Your task to perform on an android device: Search for macbook air on newegg, select the first entry, and add it to the cart. Image 0: 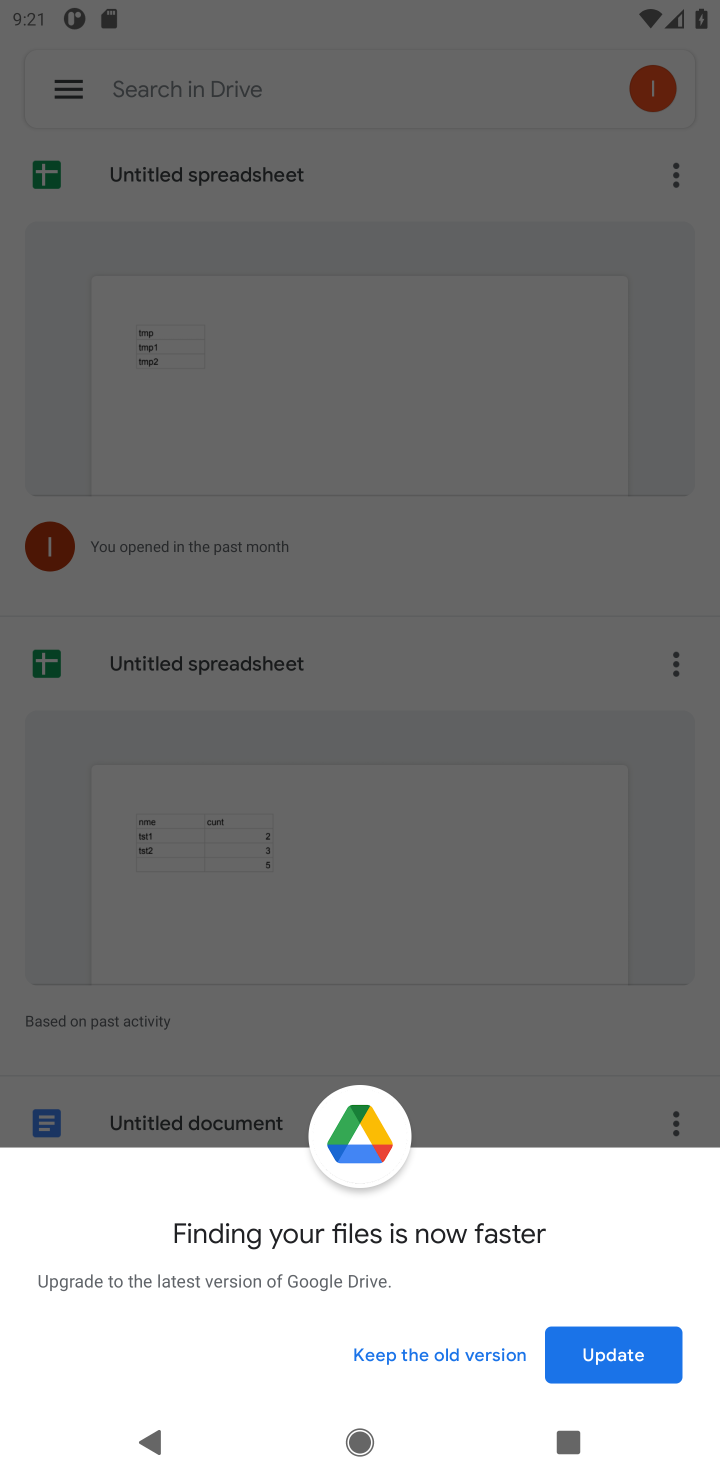
Step 0: press home button
Your task to perform on an android device: Search for macbook air on newegg, select the first entry, and add it to the cart. Image 1: 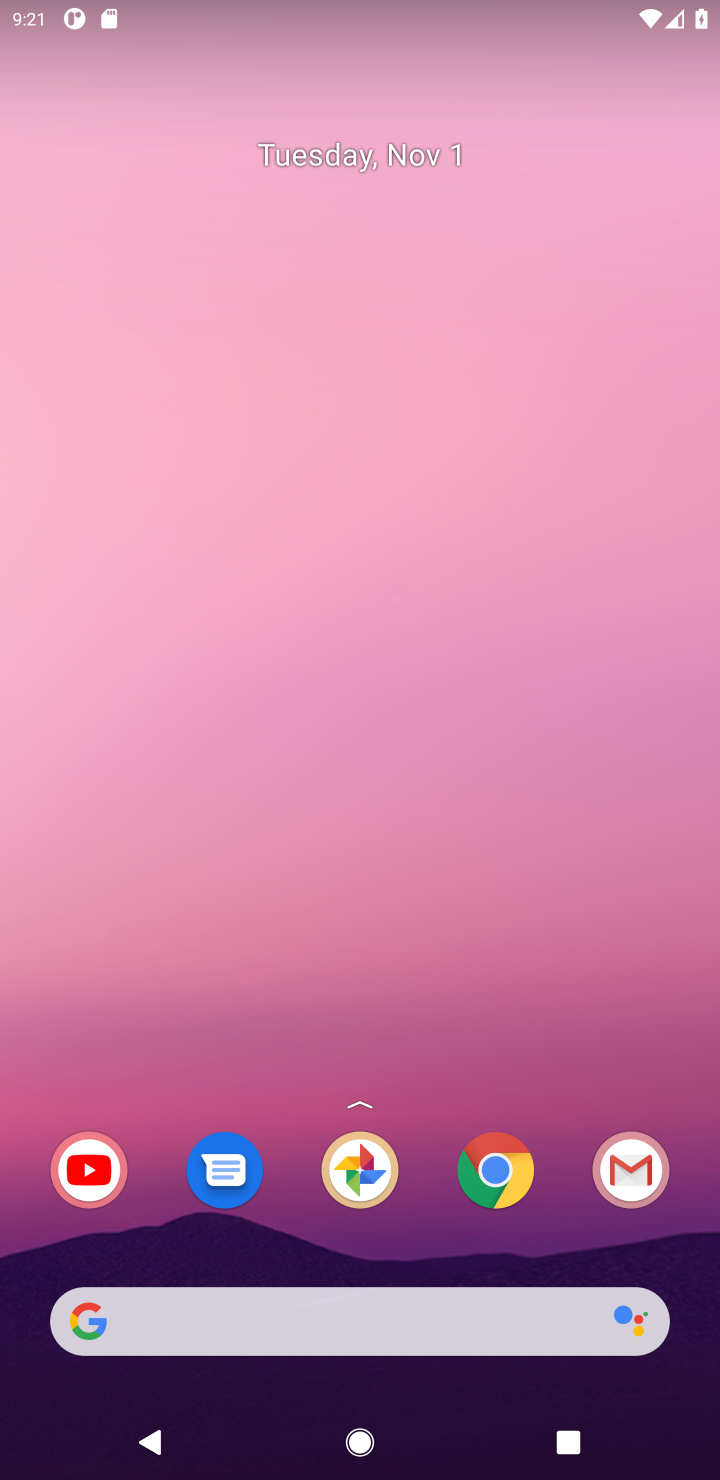
Step 1: click (489, 1184)
Your task to perform on an android device: Search for macbook air on newegg, select the first entry, and add it to the cart. Image 2: 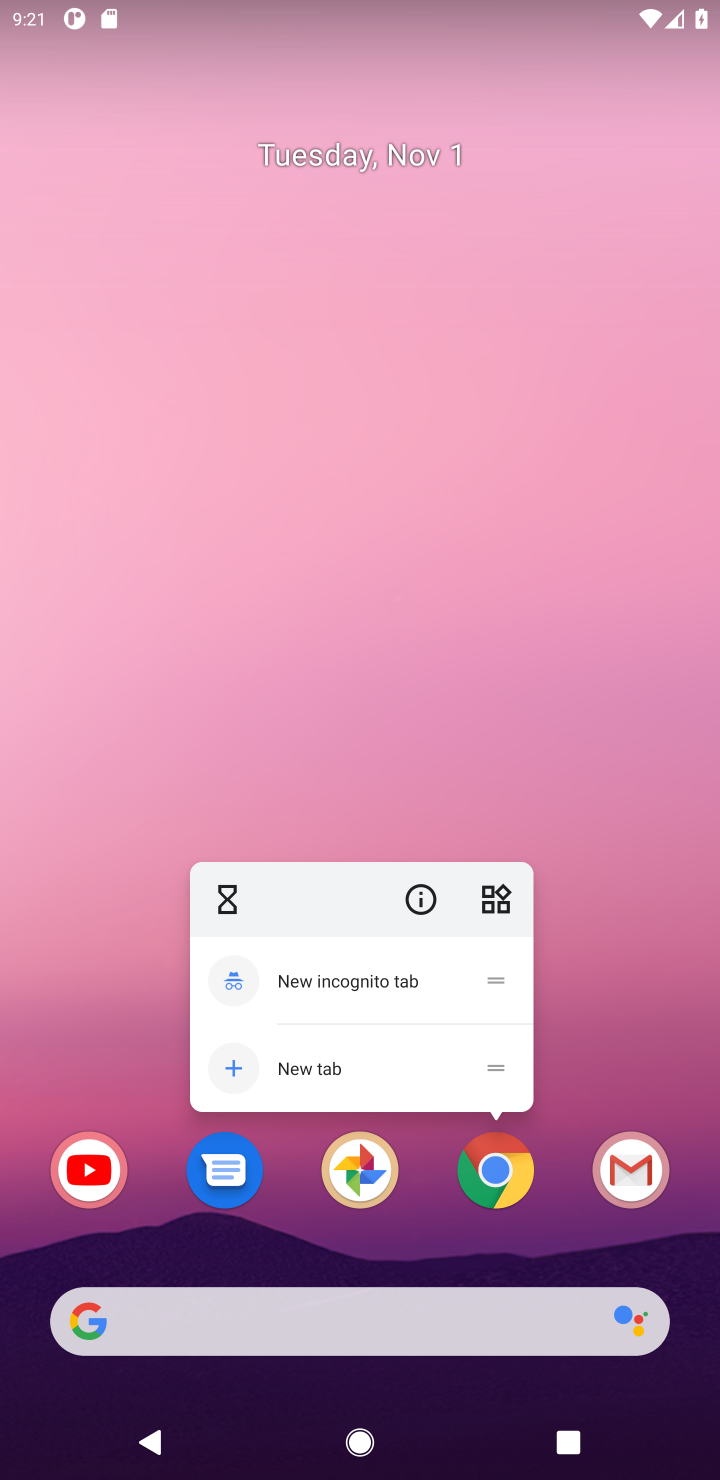
Step 2: click (521, 1177)
Your task to perform on an android device: Search for macbook air on newegg, select the first entry, and add it to the cart. Image 3: 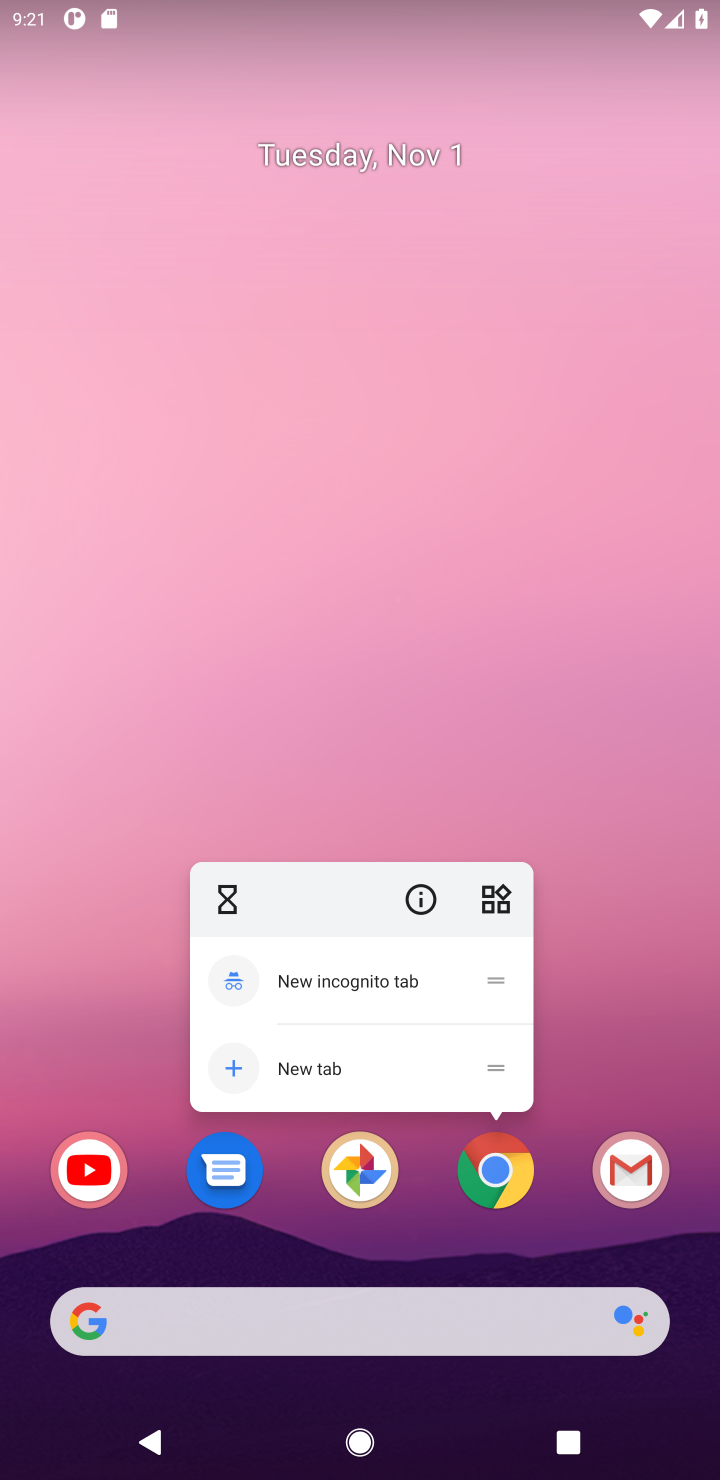
Step 3: click (498, 1180)
Your task to perform on an android device: Search for macbook air on newegg, select the first entry, and add it to the cart. Image 4: 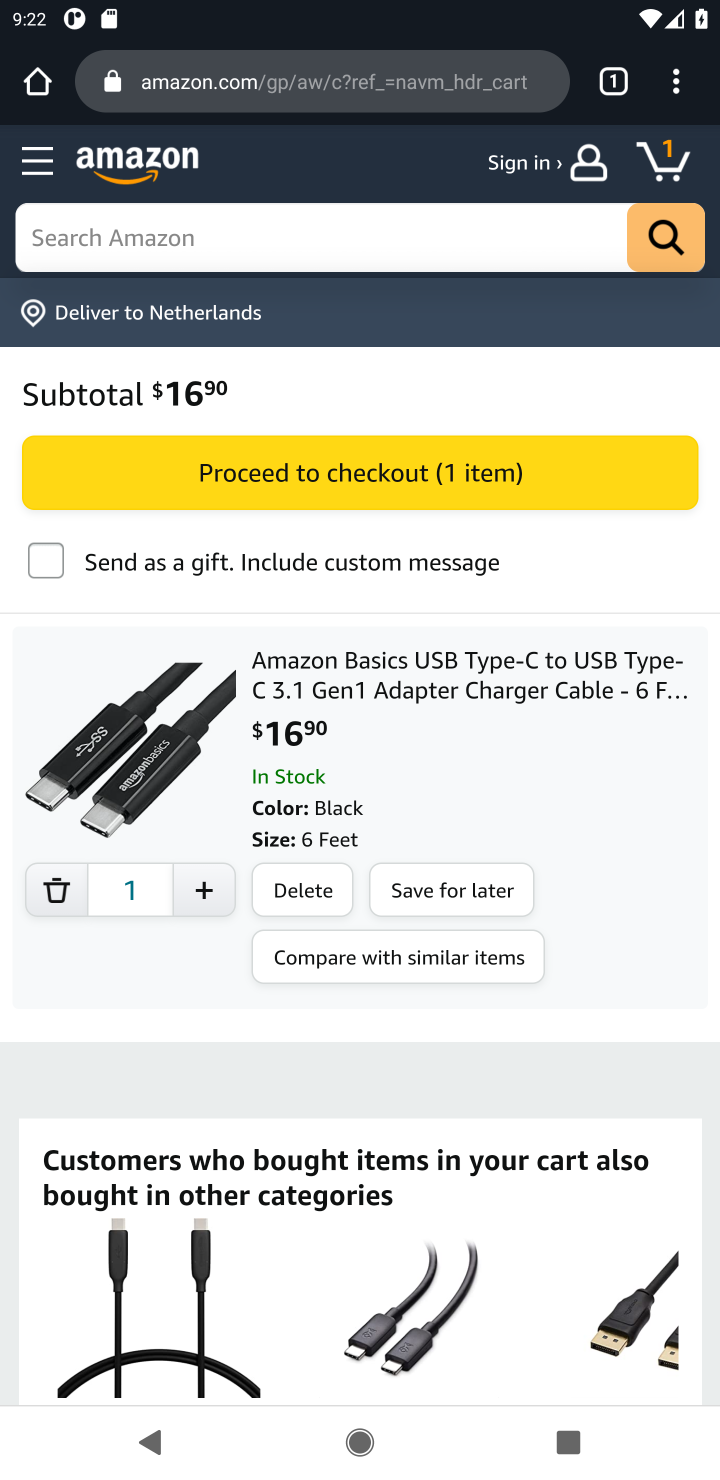
Step 4: click (336, 63)
Your task to perform on an android device: Search for macbook air on newegg, select the first entry, and add it to the cart. Image 5: 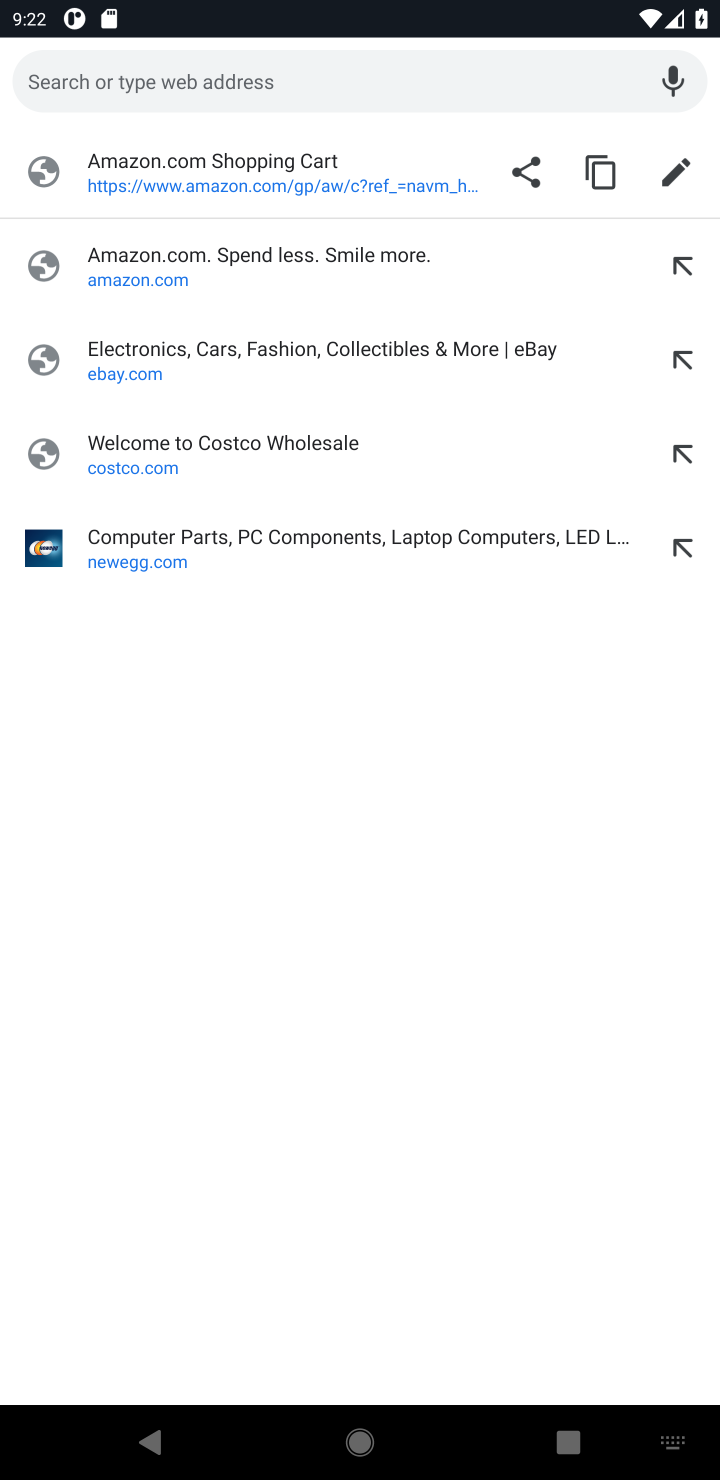
Step 5: type "newegg"
Your task to perform on an android device: Search for macbook air on newegg, select the first entry, and add it to the cart. Image 6: 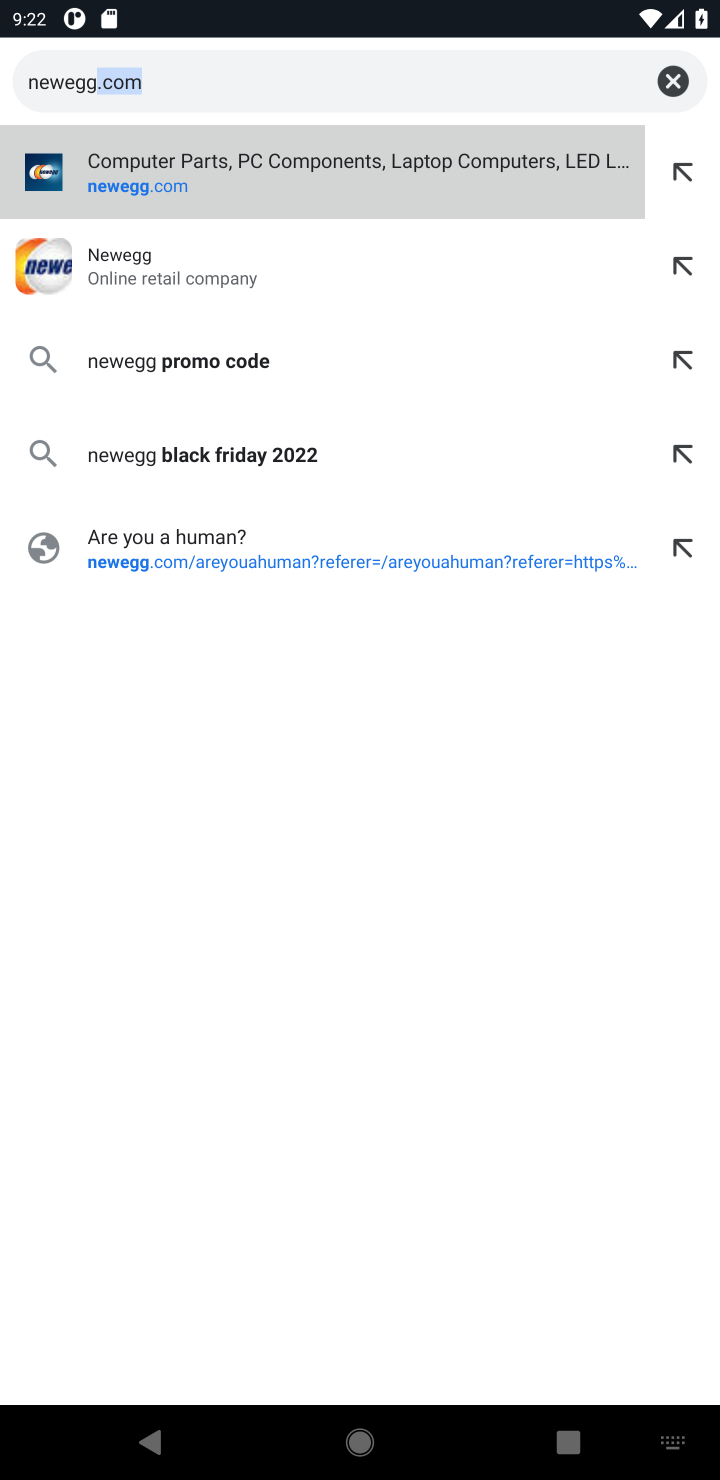
Step 6: type ""
Your task to perform on an android device: Search for macbook air on newegg, select the first entry, and add it to the cart. Image 7: 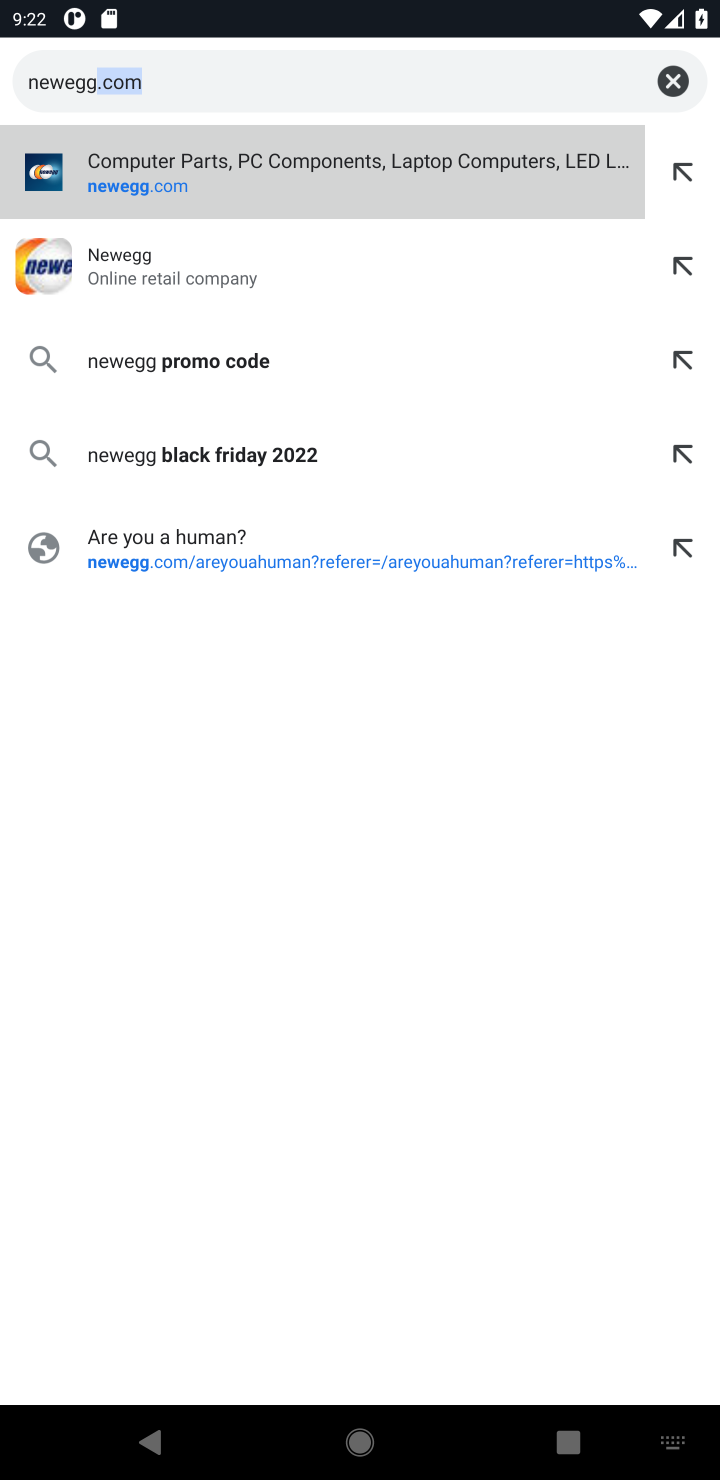
Step 7: press enter
Your task to perform on an android device: Search for macbook air on newegg, select the first entry, and add it to the cart. Image 8: 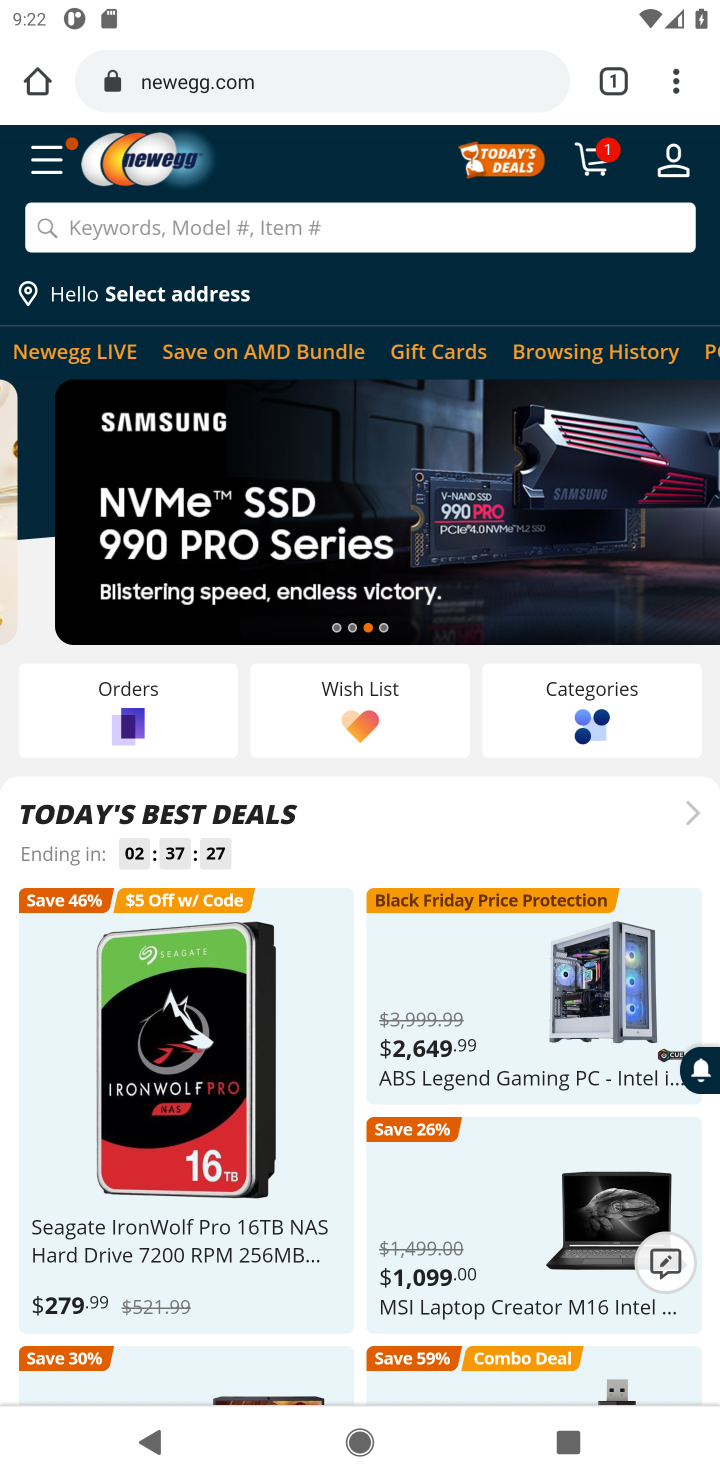
Step 8: click (302, 220)
Your task to perform on an android device: Search for macbook air on newegg, select the first entry, and add it to the cart. Image 9: 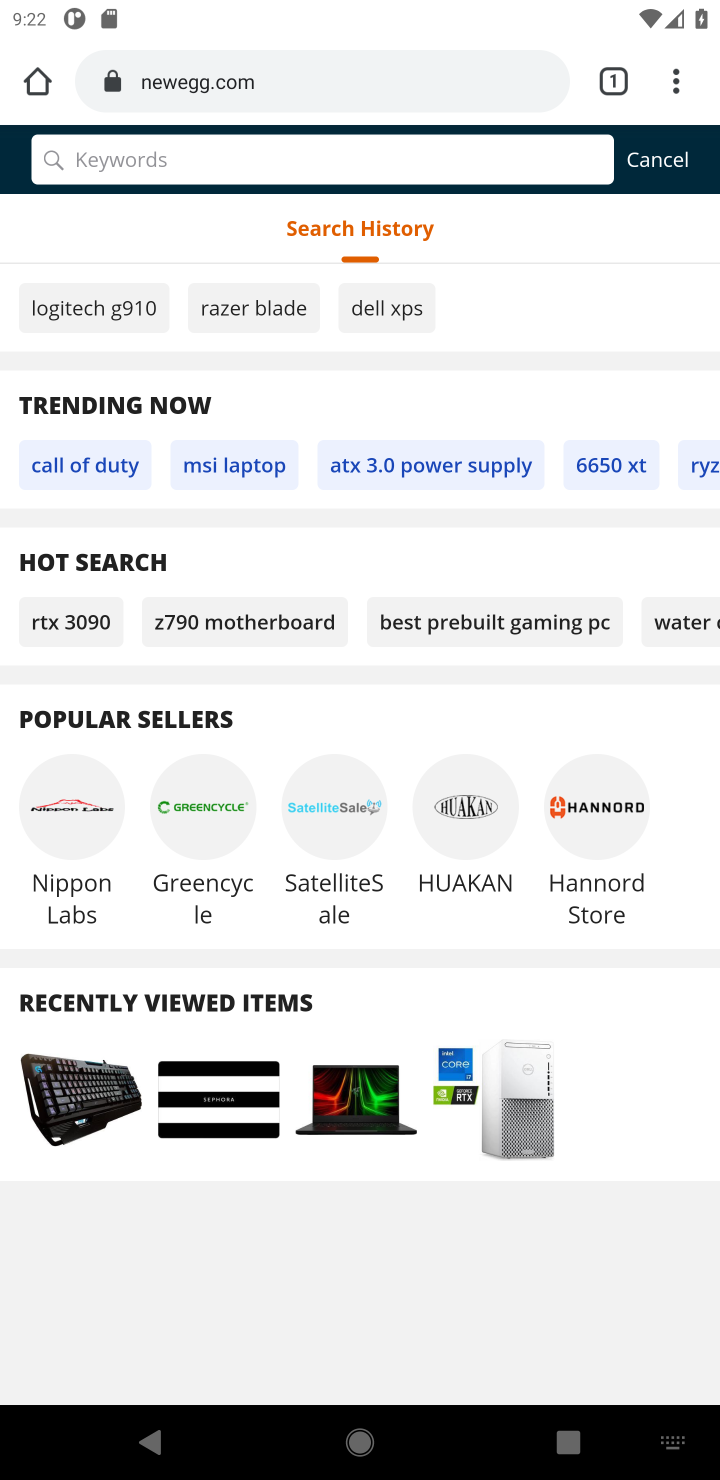
Step 9: type "macbook air"
Your task to perform on an android device: Search for macbook air on newegg, select the first entry, and add it to the cart. Image 10: 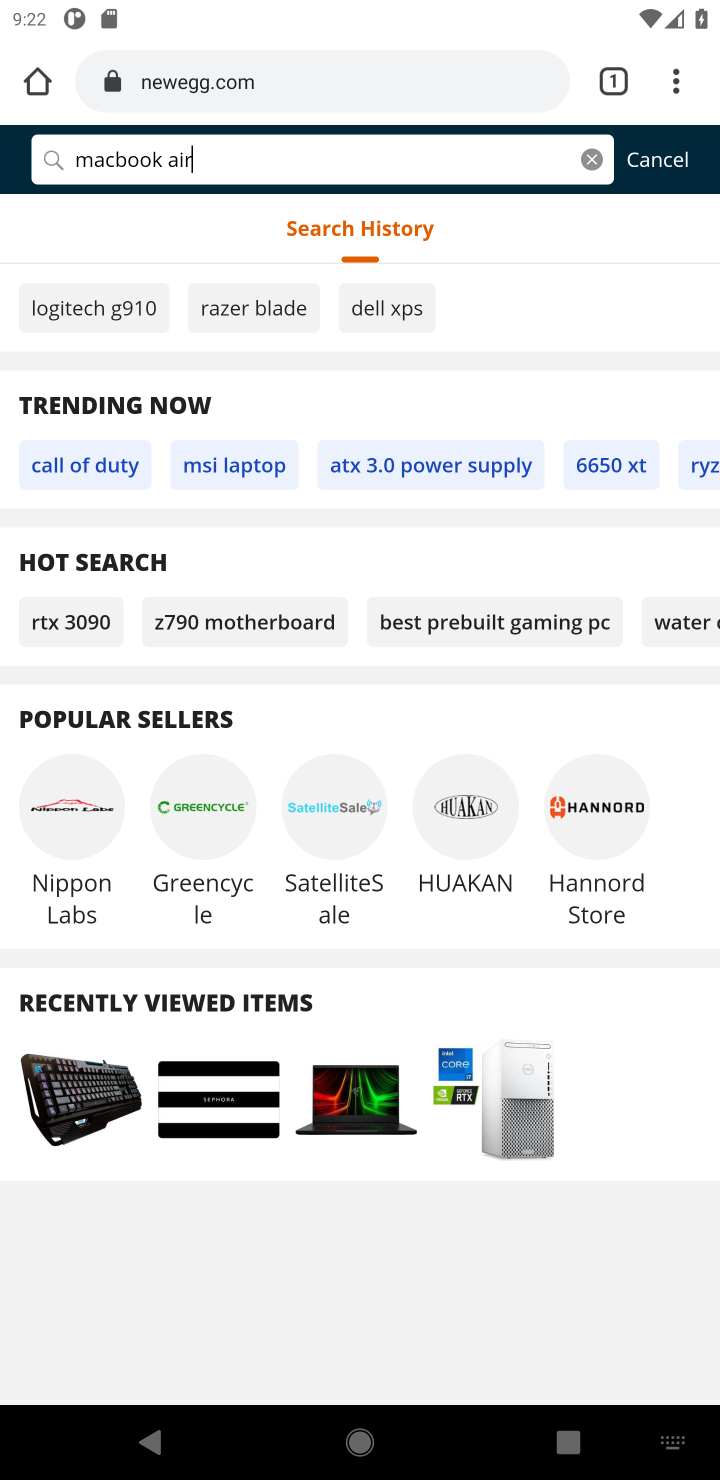
Step 10: type ""
Your task to perform on an android device: Search for macbook air on newegg, select the first entry, and add it to the cart. Image 11: 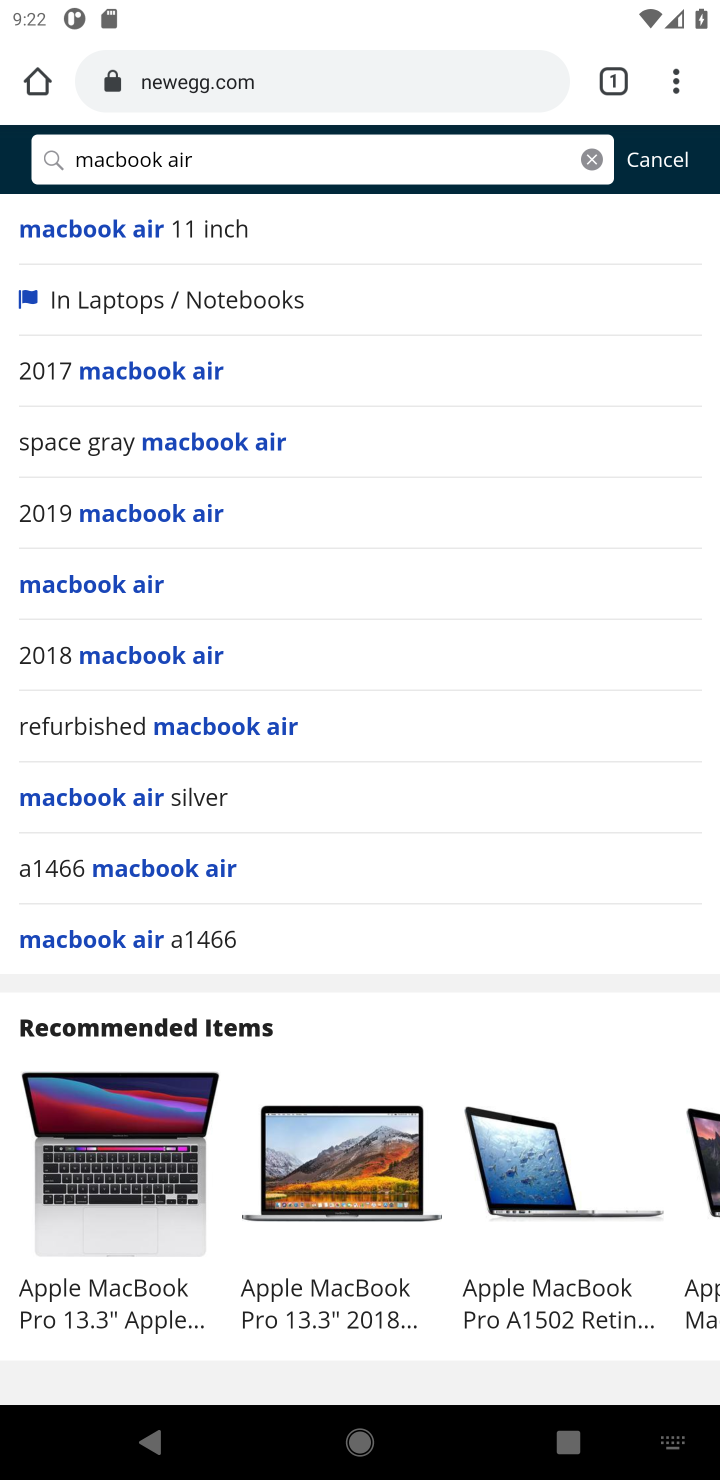
Step 11: press enter
Your task to perform on an android device: Search for macbook air on newegg, select the first entry, and add it to the cart. Image 12: 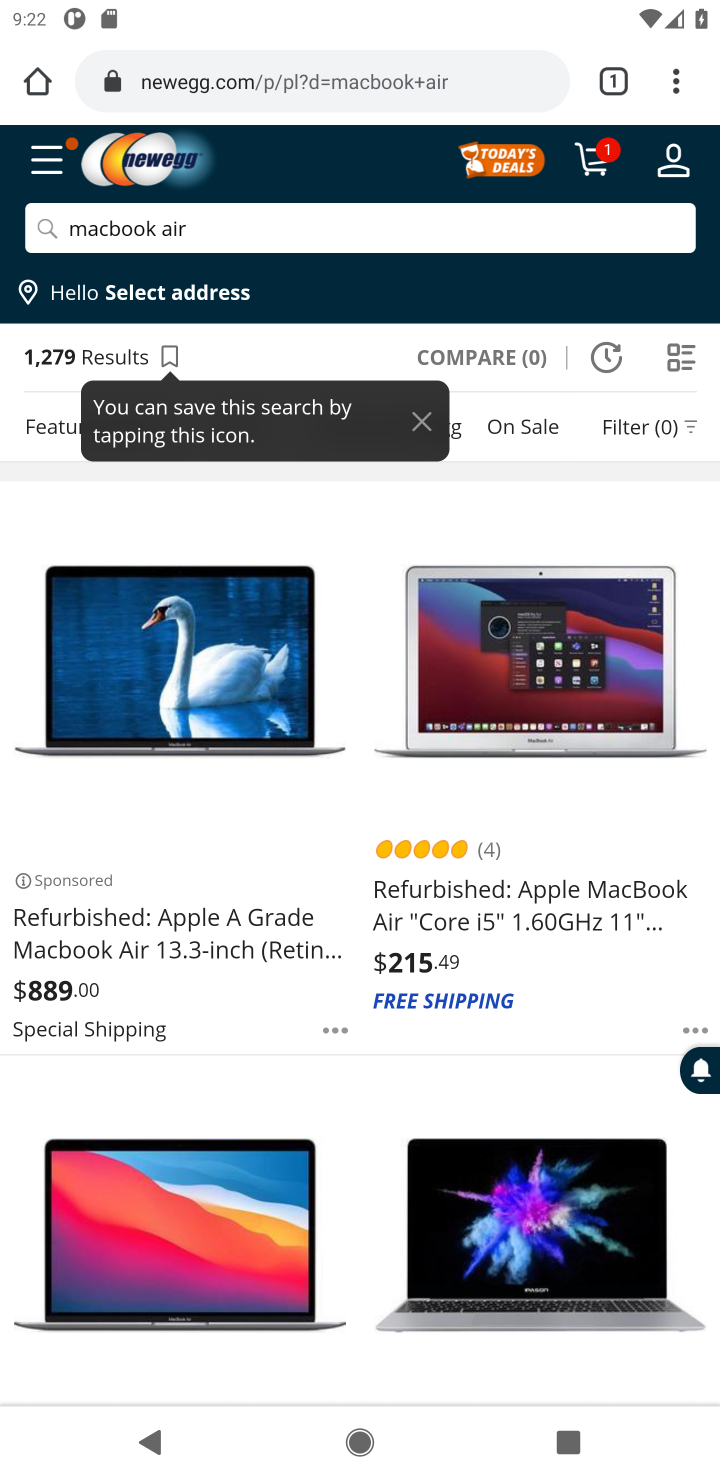
Step 12: click (154, 915)
Your task to perform on an android device: Search for macbook air on newegg, select the first entry, and add it to the cart. Image 13: 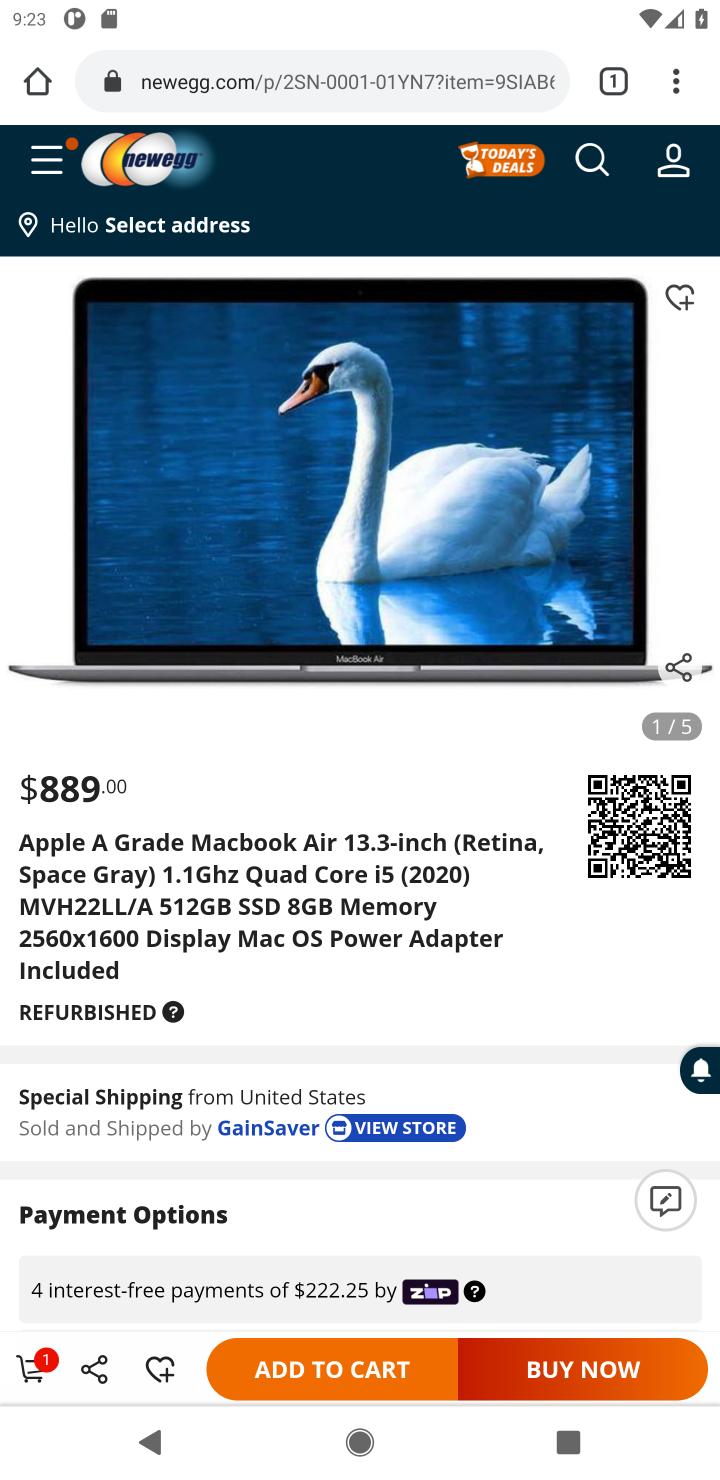
Step 13: click (342, 1364)
Your task to perform on an android device: Search for macbook air on newegg, select the first entry, and add it to the cart. Image 14: 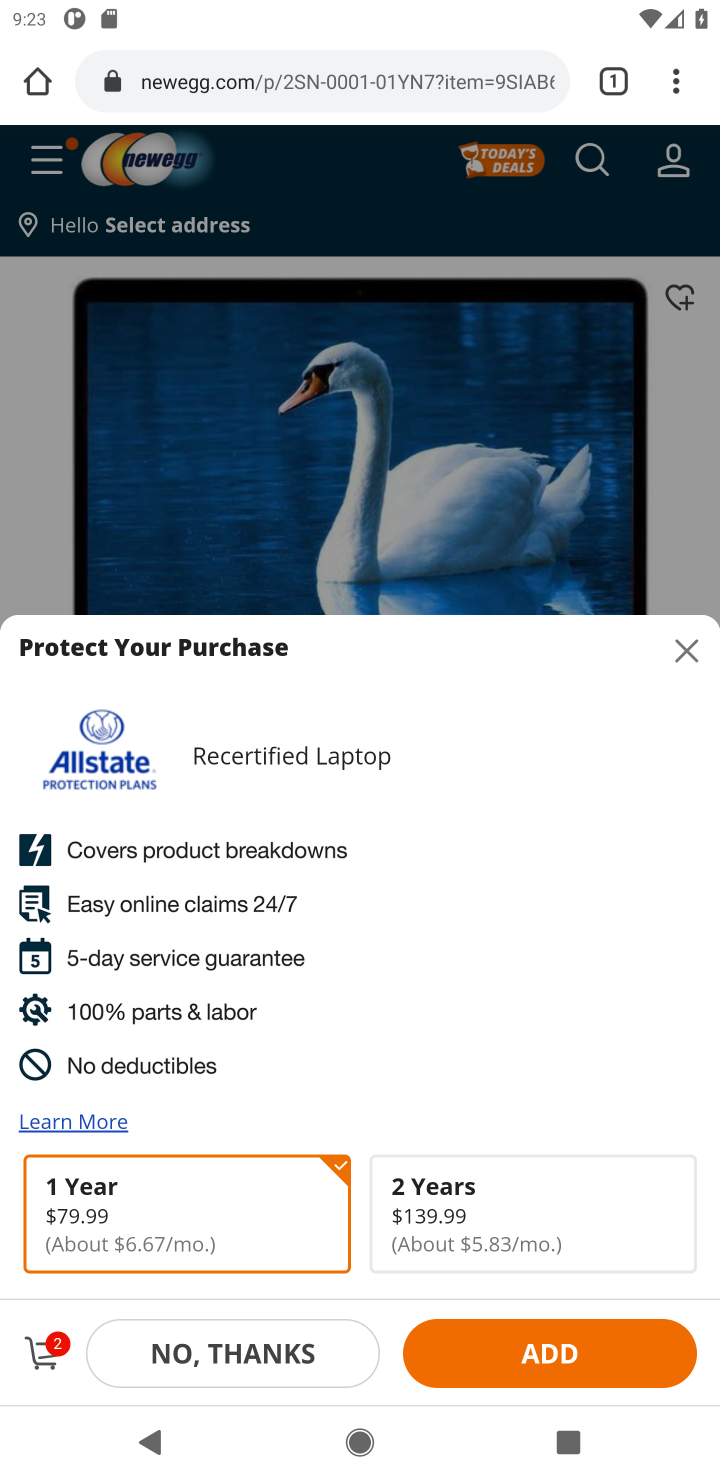
Step 14: click (223, 1350)
Your task to perform on an android device: Search for macbook air on newegg, select the first entry, and add it to the cart. Image 15: 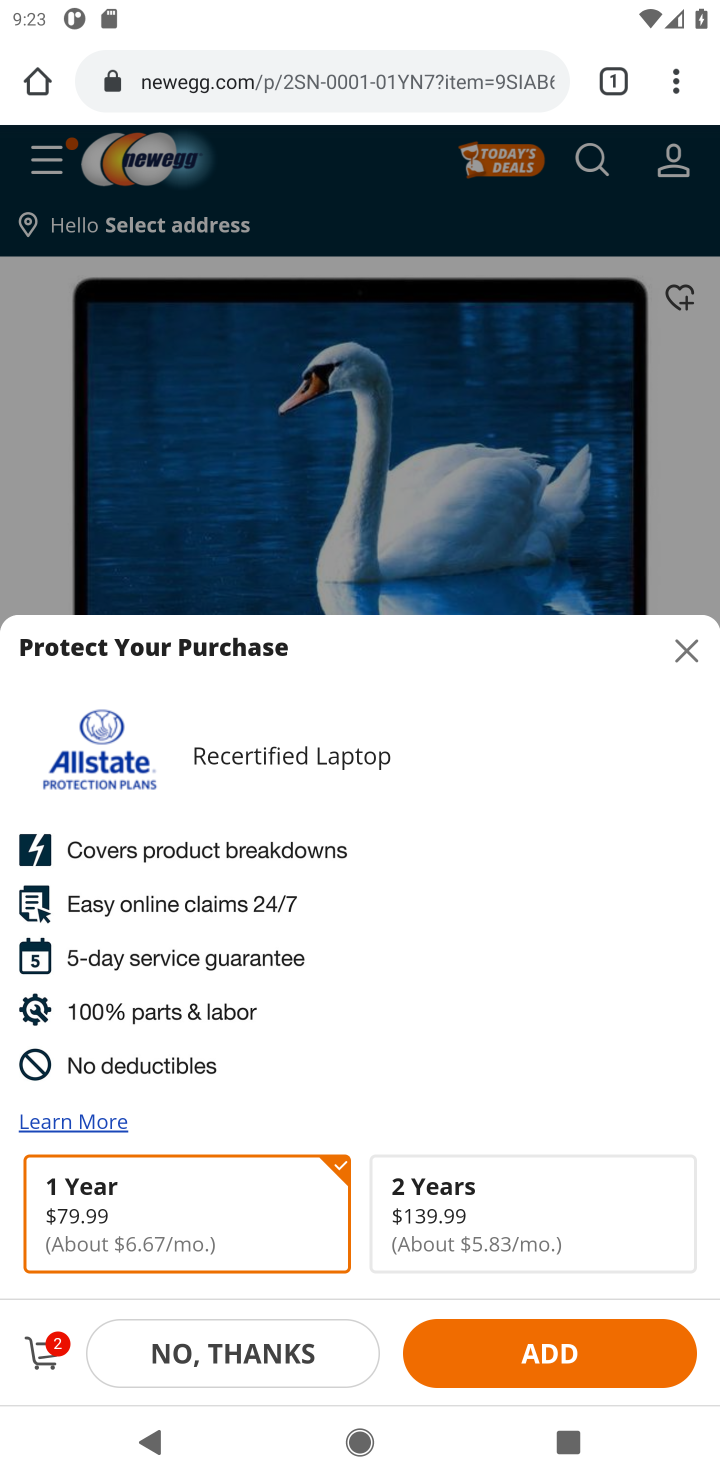
Step 15: click (274, 1366)
Your task to perform on an android device: Search for macbook air on newegg, select the first entry, and add it to the cart. Image 16: 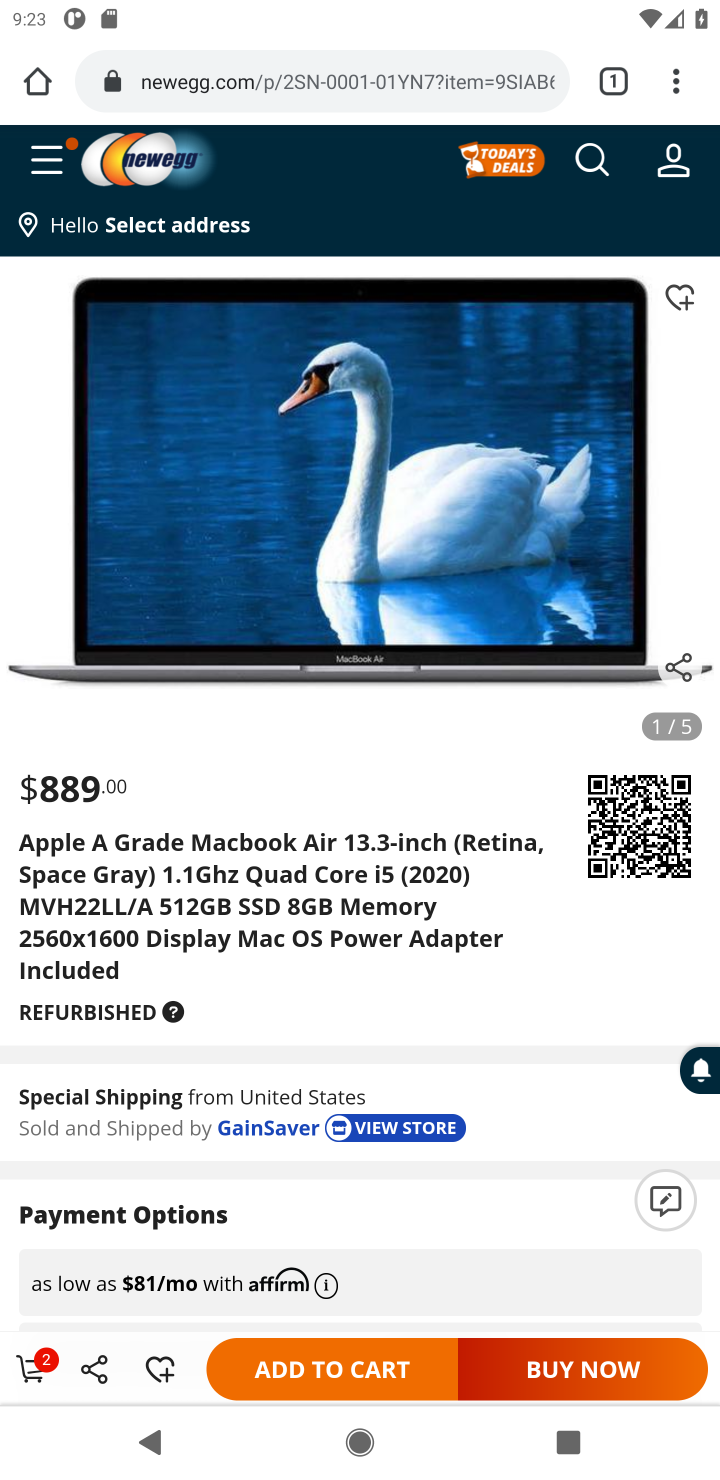
Step 16: task complete